Your task to perform on an android device: What's the weather going to be this weekend? Image 0: 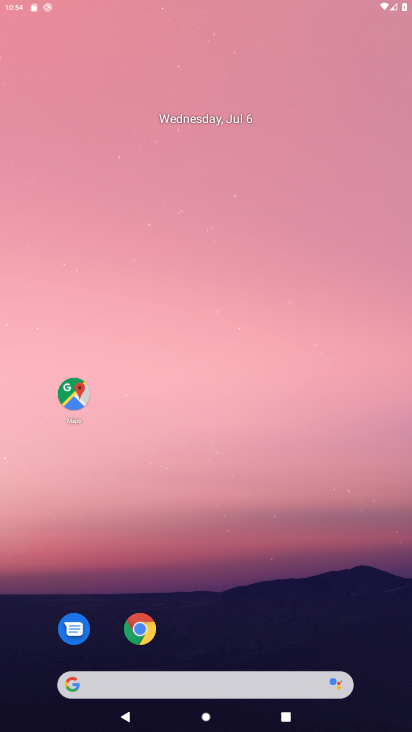
Step 0: press home button
Your task to perform on an android device: What's the weather going to be this weekend? Image 1: 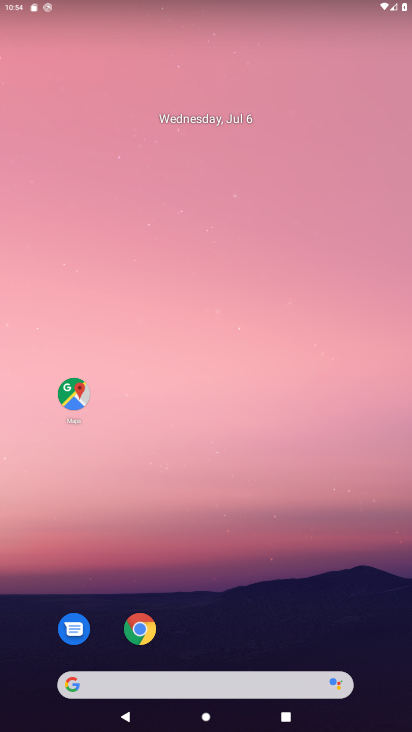
Step 1: drag from (203, 651) to (224, 75)
Your task to perform on an android device: What's the weather going to be this weekend? Image 2: 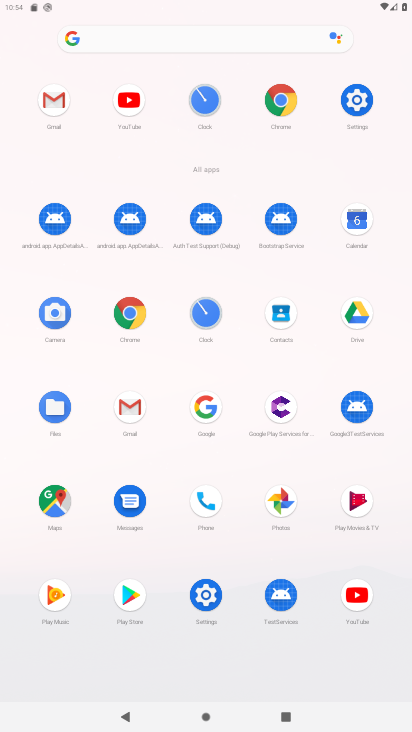
Step 2: click (206, 402)
Your task to perform on an android device: What's the weather going to be this weekend? Image 3: 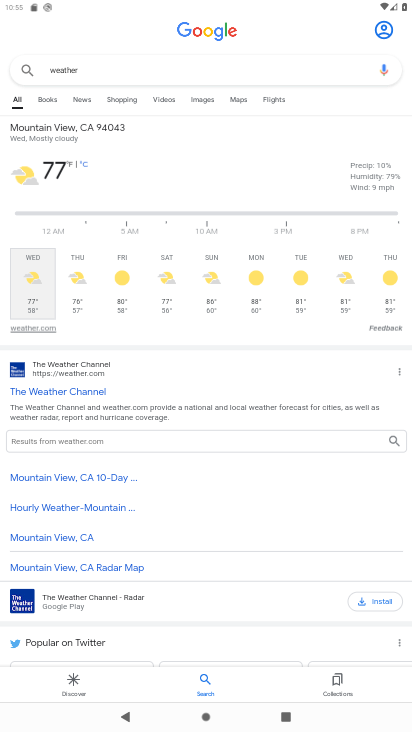
Step 3: click (168, 276)
Your task to perform on an android device: What's the weather going to be this weekend? Image 4: 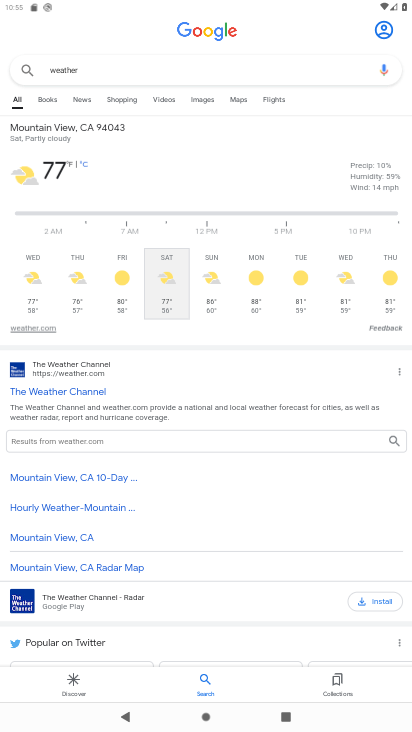
Step 4: click (214, 277)
Your task to perform on an android device: What's the weather going to be this weekend? Image 5: 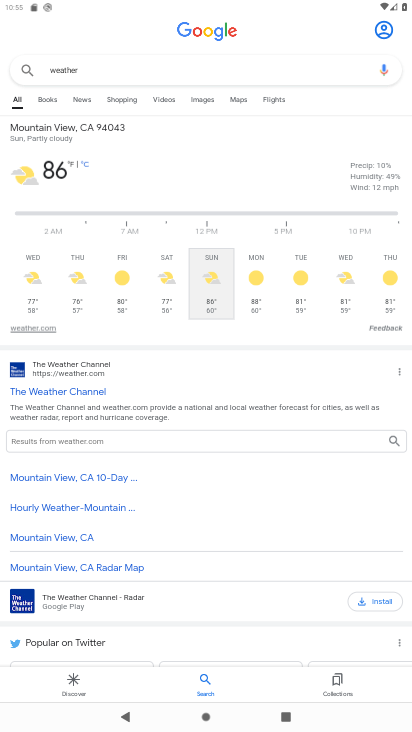
Step 5: task complete